Your task to perform on an android device: turn off airplane mode Image 0: 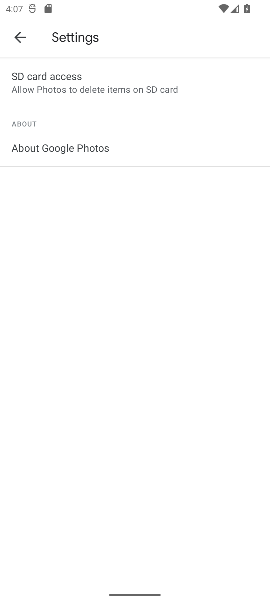
Step 0: press home button
Your task to perform on an android device: turn off airplane mode Image 1: 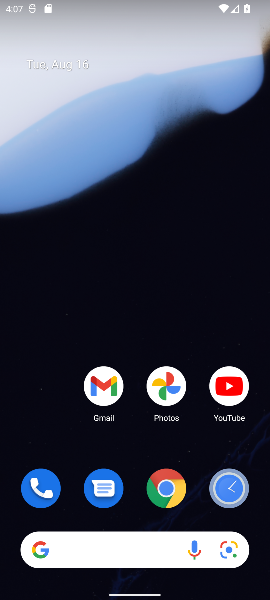
Step 1: click (95, 224)
Your task to perform on an android device: turn off airplane mode Image 2: 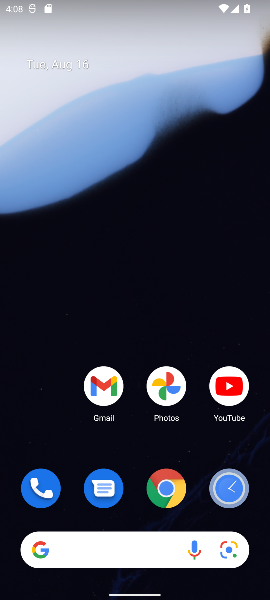
Step 2: drag from (36, 433) to (48, 92)
Your task to perform on an android device: turn off airplane mode Image 3: 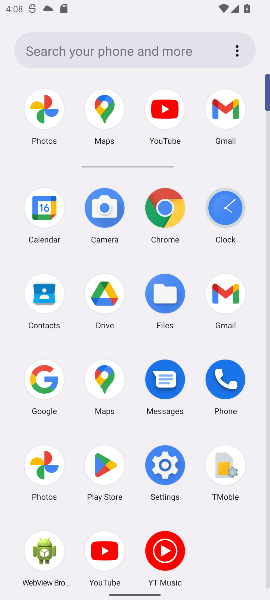
Step 3: click (169, 462)
Your task to perform on an android device: turn off airplane mode Image 4: 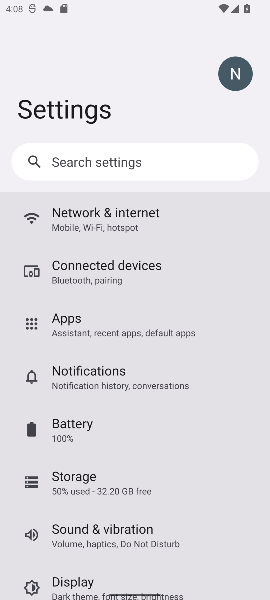
Step 4: click (104, 223)
Your task to perform on an android device: turn off airplane mode Image 5: 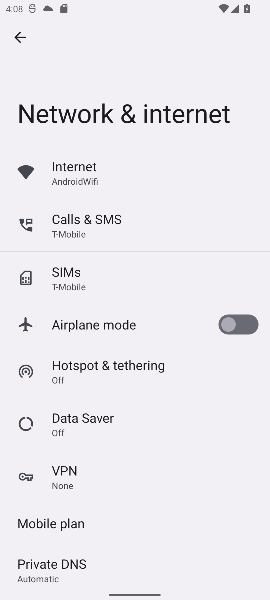
Step 5: task complete